Your task to perform on an android device: Open display settings Image 0: 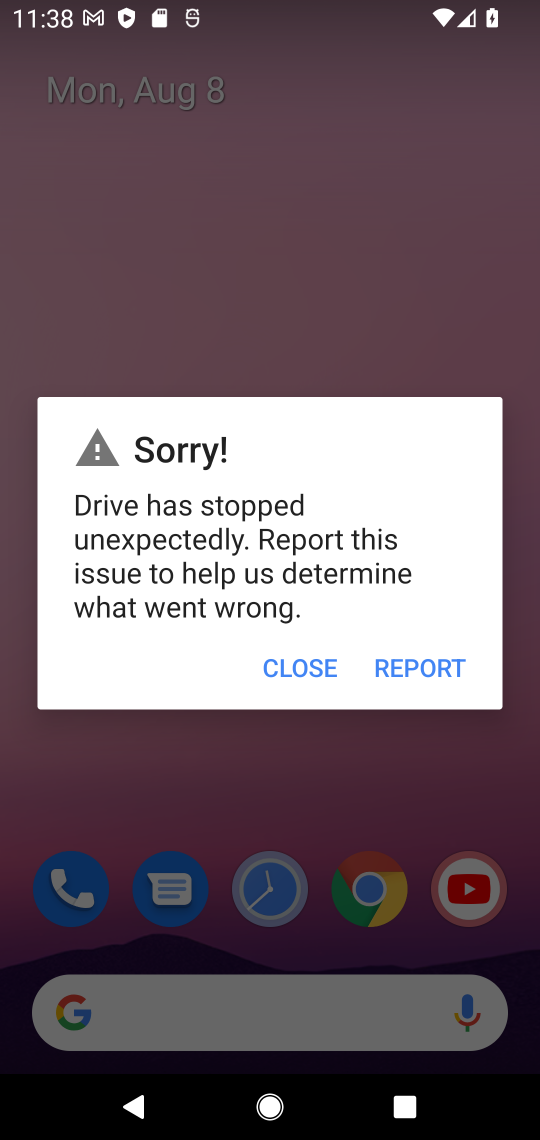
Step 0: press home button
Your task to perform on an android device: Open display settings Image 1: 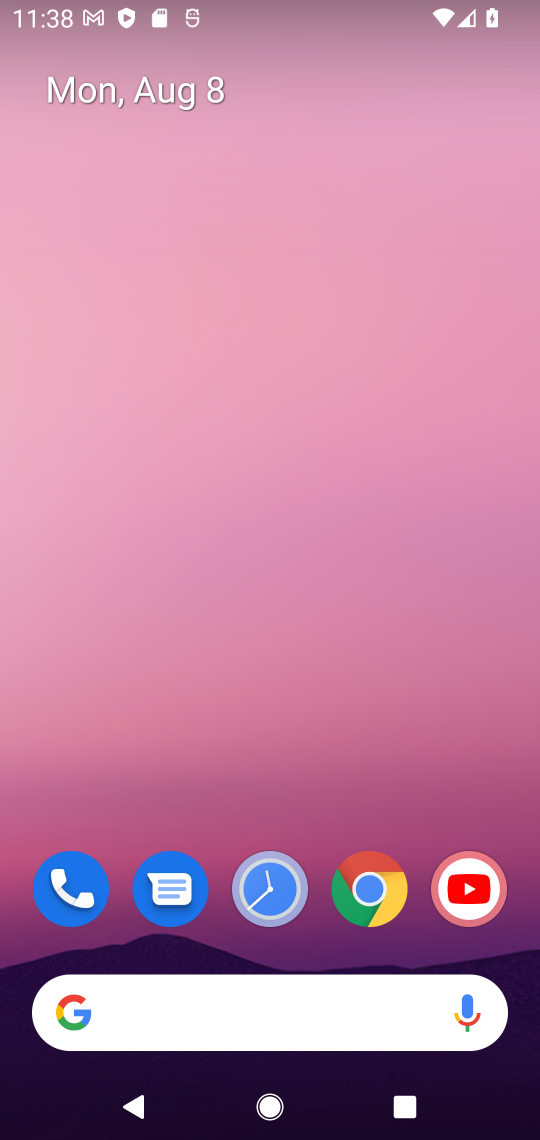
Step 1: drag from (425, 736) to (393, 173)
Your task to perform on an android device: Open display settings Image 2: 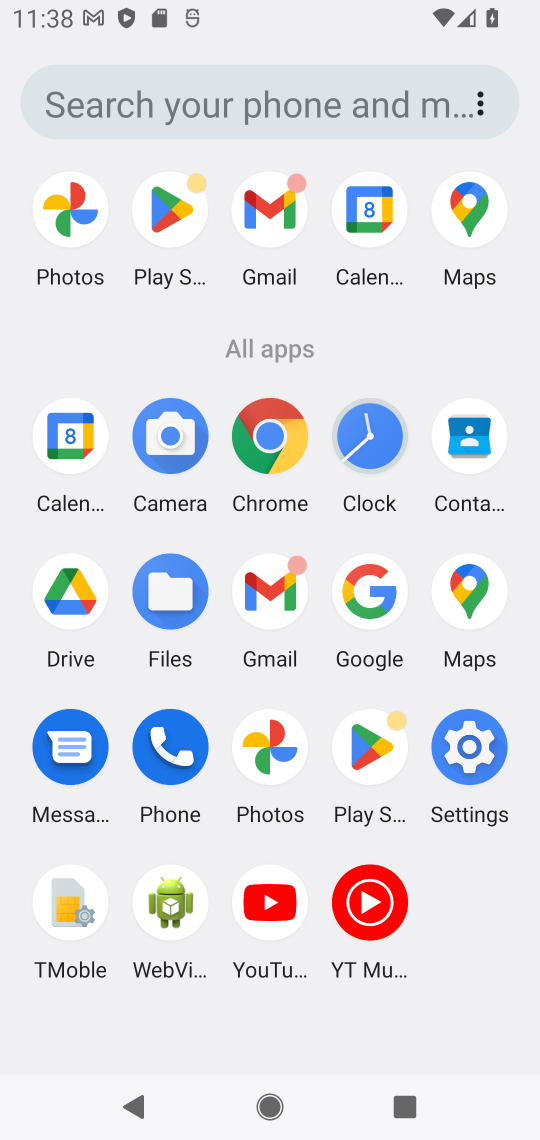
Step 2: click (466, 768)
Your task to perform on an android device: Open display settings Image 3: 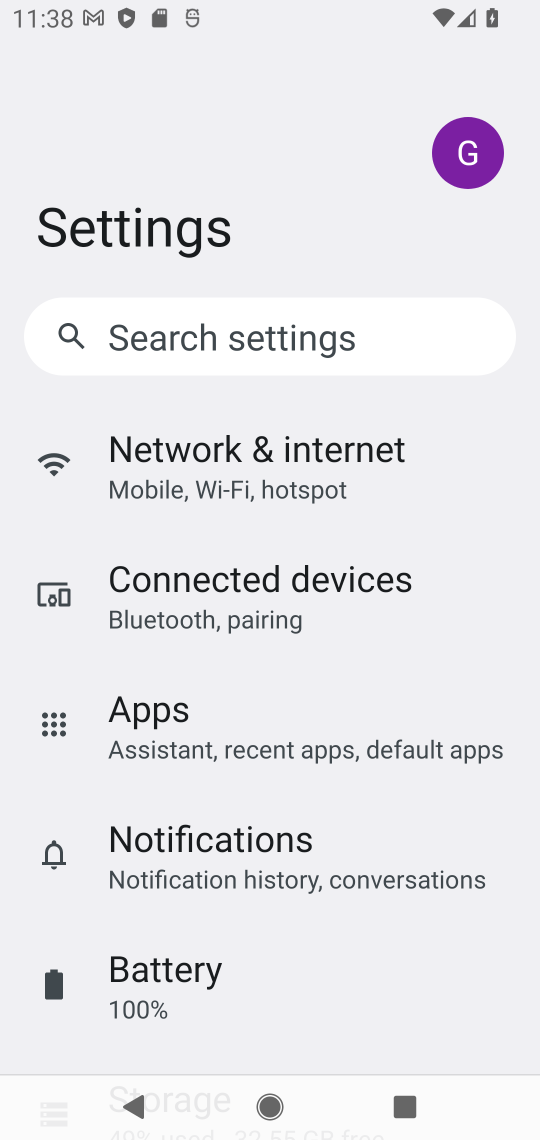
Step 3: drag from (399, 834) to (269, 175)
Your task to perform on an android device: Open display settings Image 4: 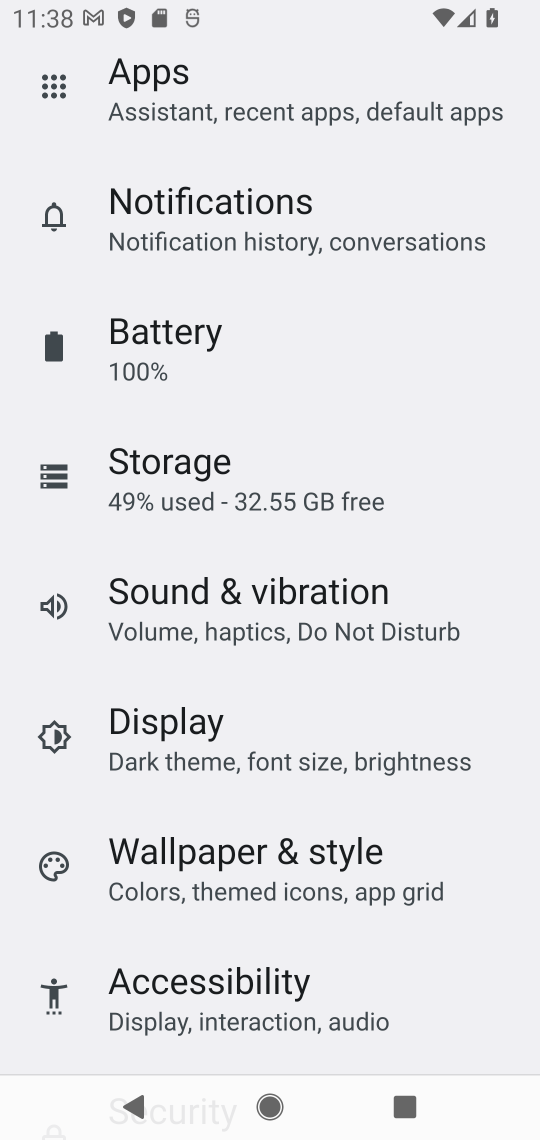
Step 4: click (141, 757)
Your task to perform on an android device: Open display settings Image 5: 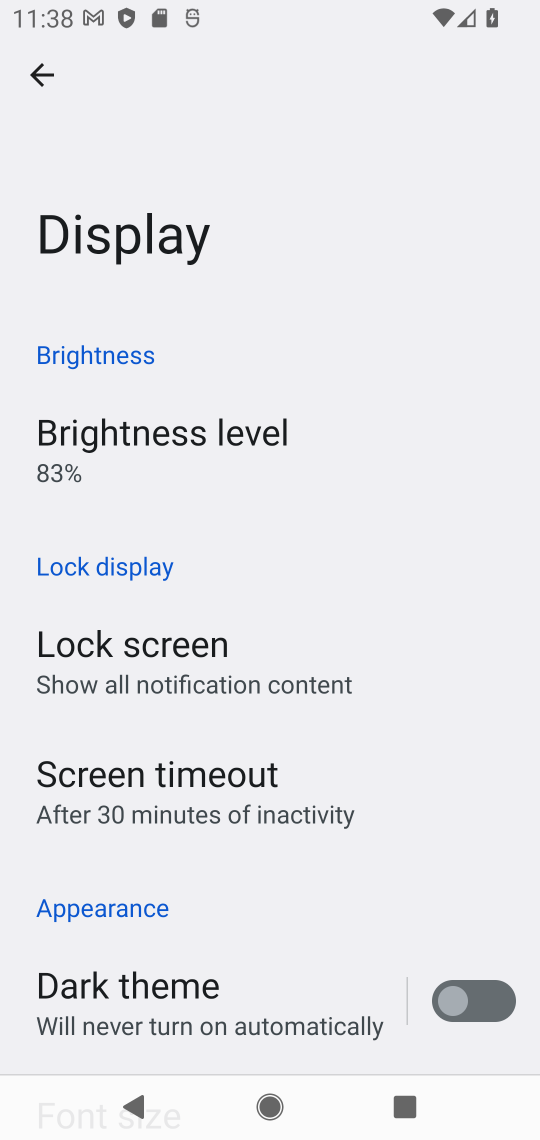
Step 5: task complete